Your task to perform on an android device: Open settings Image 0: 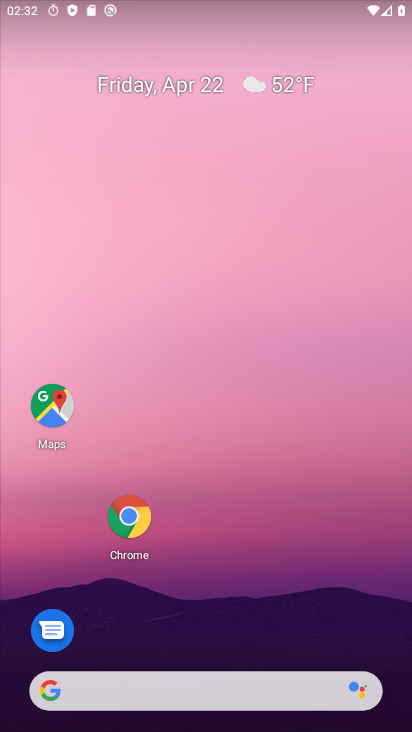
Step 0: drag from (362, 391) to (311, 139)
Your task to perform on an android device: Open settings Image 1: 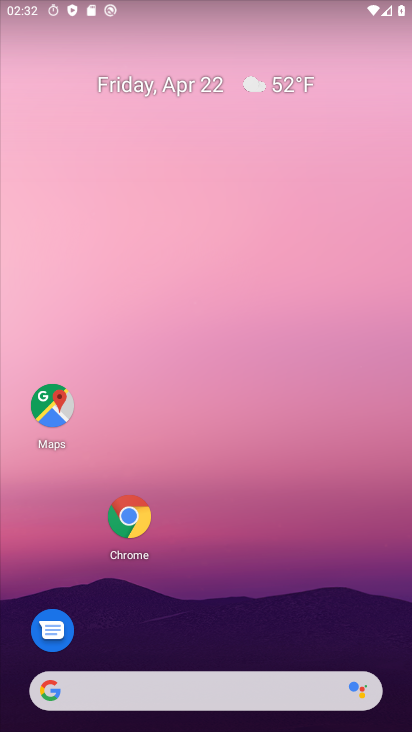
Step 1: drag from (358, 389) to (345, 151)
Your task to perform on an android device: Open settings Image 2: 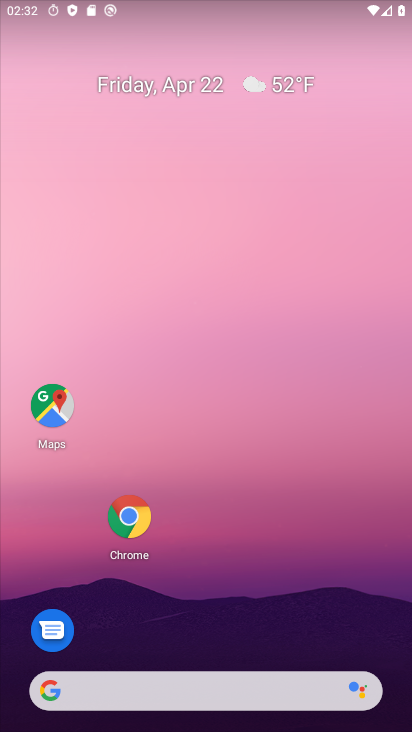
Step 2: drag from (338, 358) to (314, 109)
Your task to perform on an android device: Open settings Image 3: 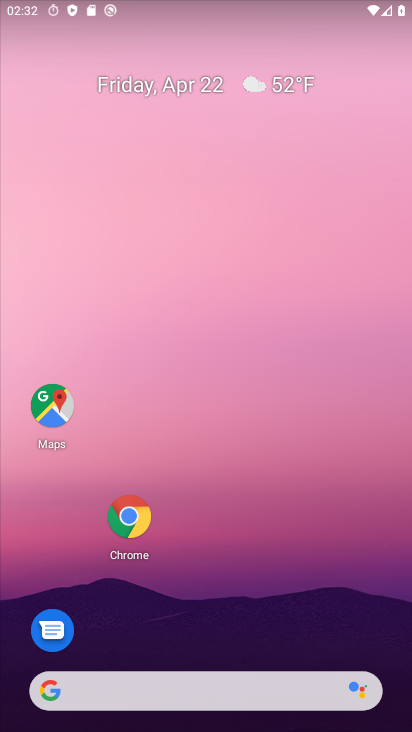
Step 3: drag from (363, 353) to (344, 161)
Your task to perform on an android device: Open settings Image 4: 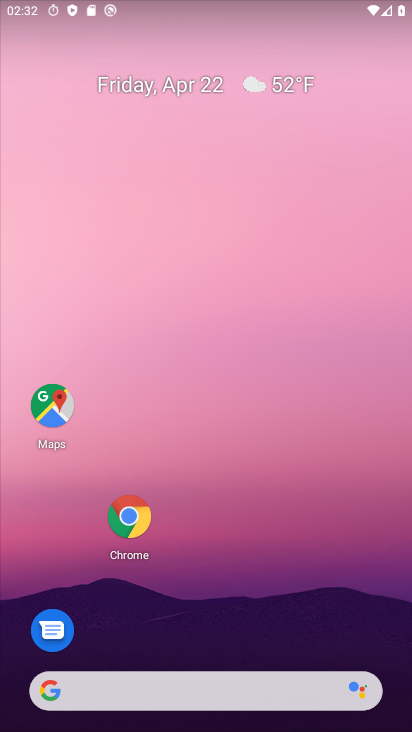
Step 4: drag from (365, 632) to (335, 152)
Your task to perform on an android device: Open settings Image 5: 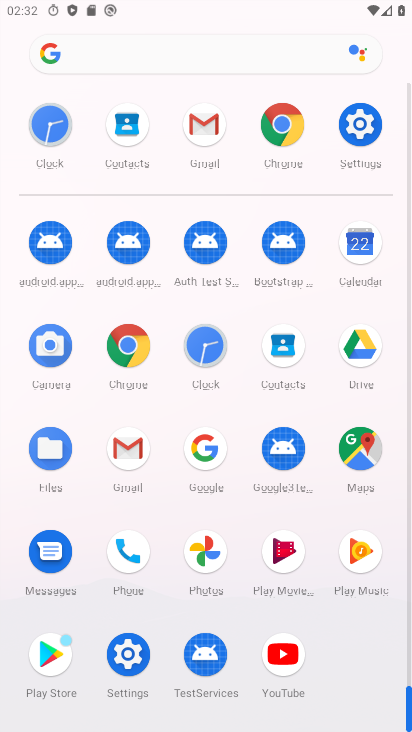
Step 5: click (362, 123)
Your task to perform on an android device: Open settings Image 6: 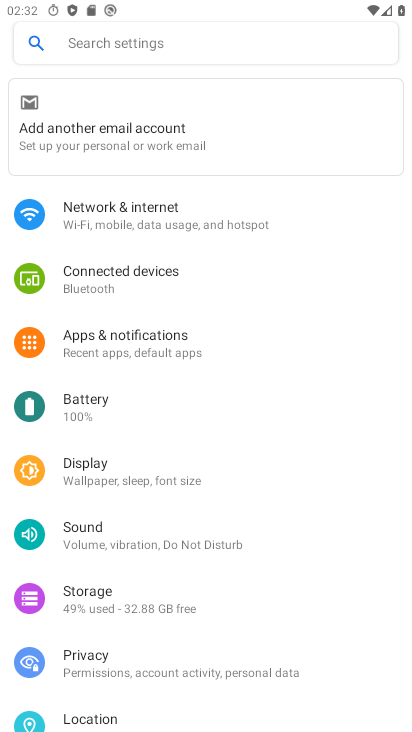
Step 6: task complete